Your task to perform on an android device: Turn off the flashlight Image 0: 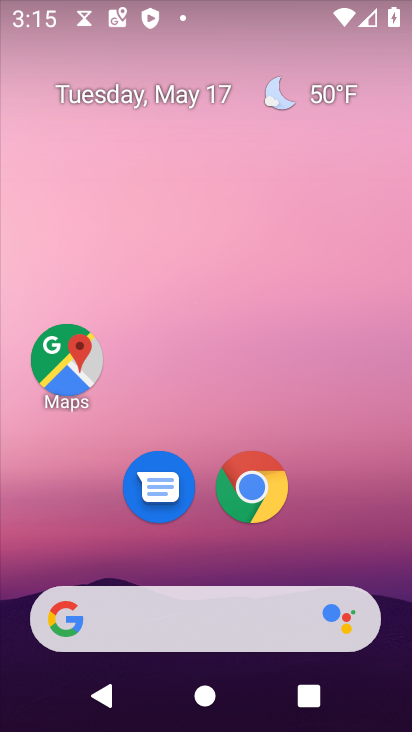
Step 0: drag from (203, 5) to (280, 438)
Your task to perform on an android device: Turn off the flashlight Image 1: 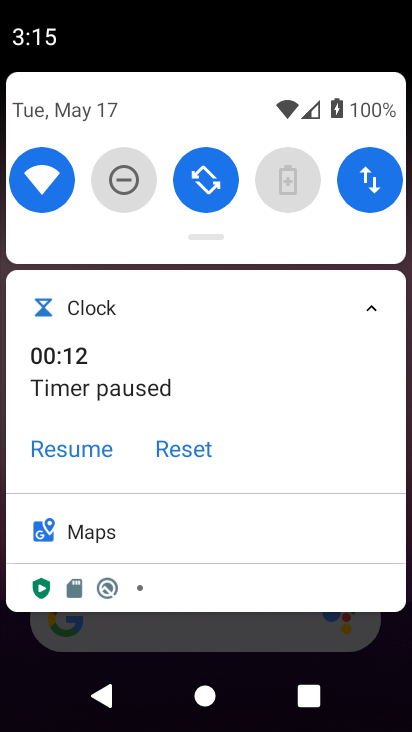
Step 1: drag from (211, 235) to (206, 501)
Your task to perform on an android device: Turn off the flashlight Image 2: 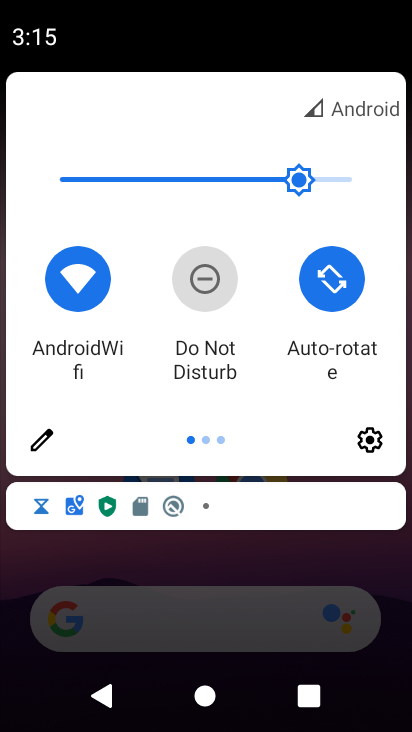
Step 2: click (30, 433)
Your task to perform on an android device: Turn off the flashlight Image 3: 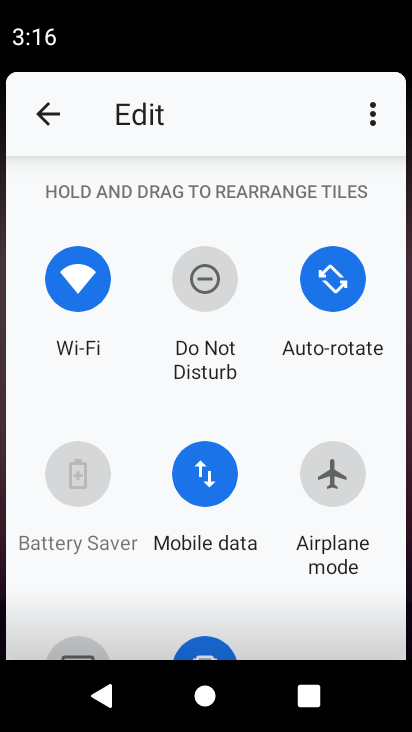
Step 3: task complete